Your task to perform on an android device: Go to calendar. Show me events next week Image 0: 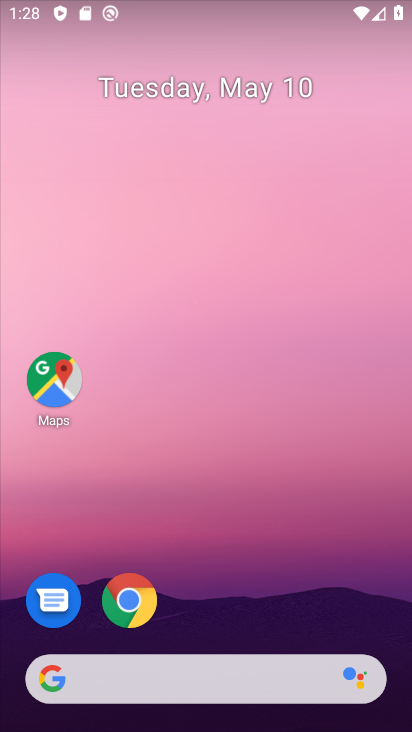
Step 0: drag from (261, 586) to (257, 201)
Your task to perform on an android device: Go to calendar. Show me events next week Image 1: 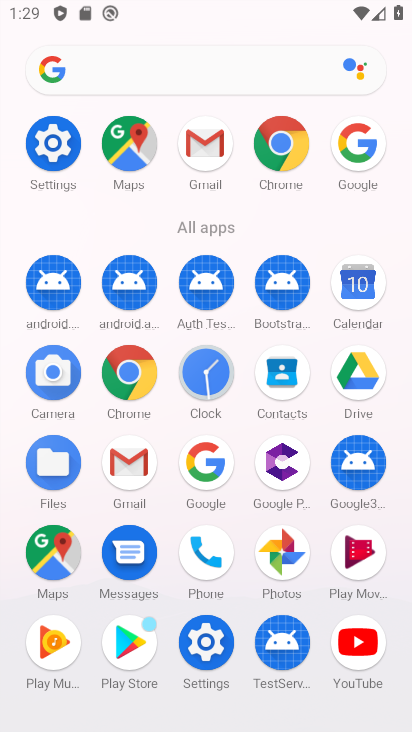
Step 1: click (358, 284)
Your task to perform on an android device: Go to calendar. Show me events next week Image 2: 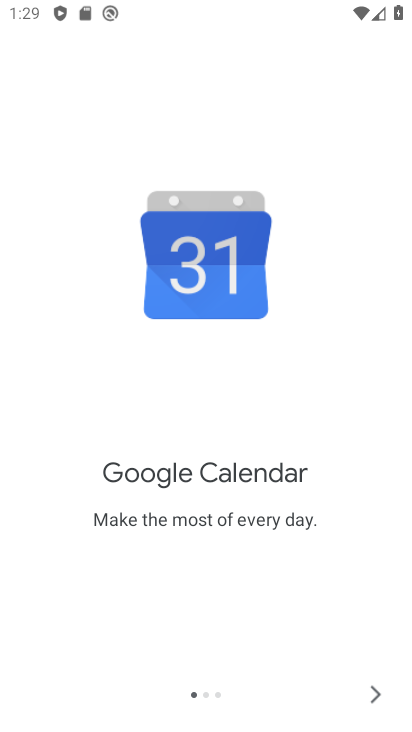
Step 2: click (363, 699)
Your task to perform on an android device: Go to calendar. Show me events next week Image 3: 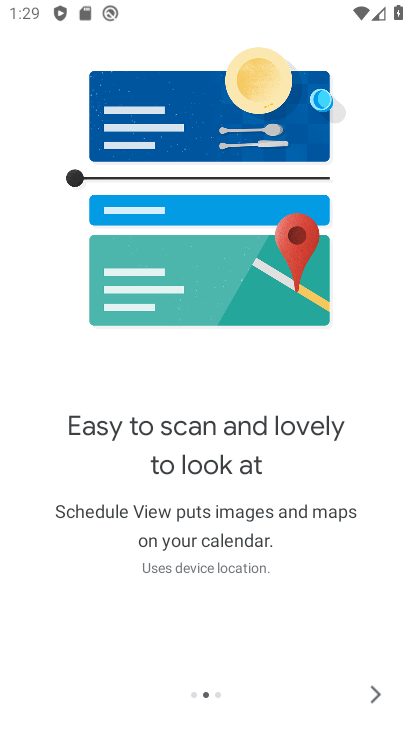
Step 3: click (363, 699)
Your task to perform on an android device: Go to calendar. Show me events next week Image 4: 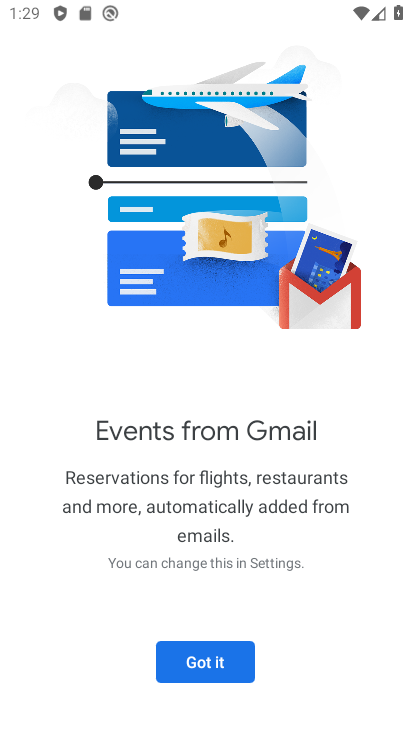
Step 4: click (213, 666)
Your task to perform on an android device: Go to calendar. Show me events next week Image 5: 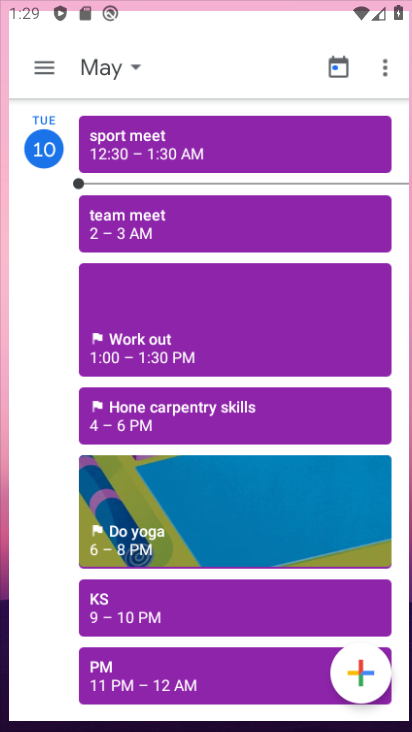
Step 5: click (213, 666)
Your task to perform on an android device: Go to calendar. Show me events next week Image 6: 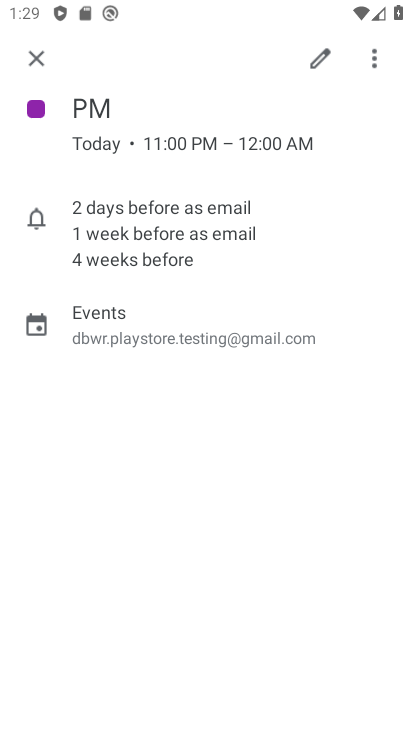
Step 6: click (39, 55)
Your task to perform on an android device: Go to calendar. Show me events next week Image 7: 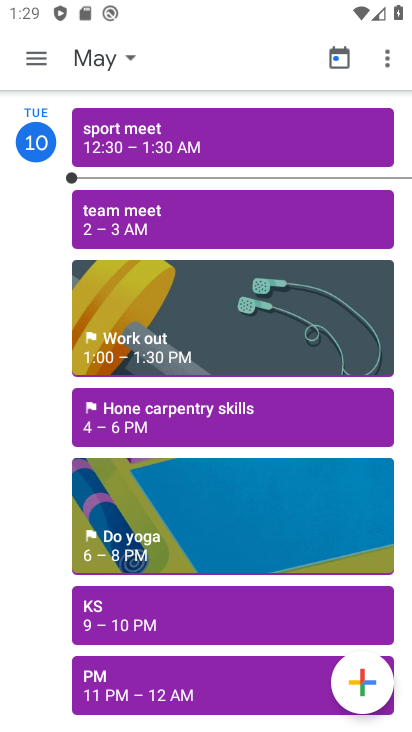
Step 7: click (119, 57)
Your task to perform on an android device: Go to calendar. Show me events next week Image 8: 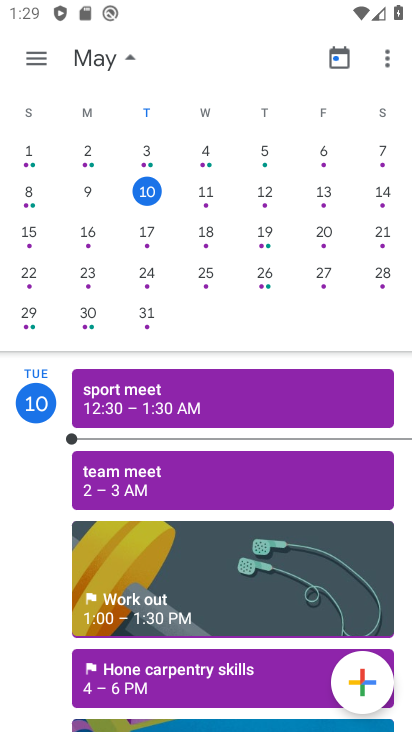
Step 8: click (149, 231)
Your task to perform on an android device: Go to calendar. Show me events next week Image 9: 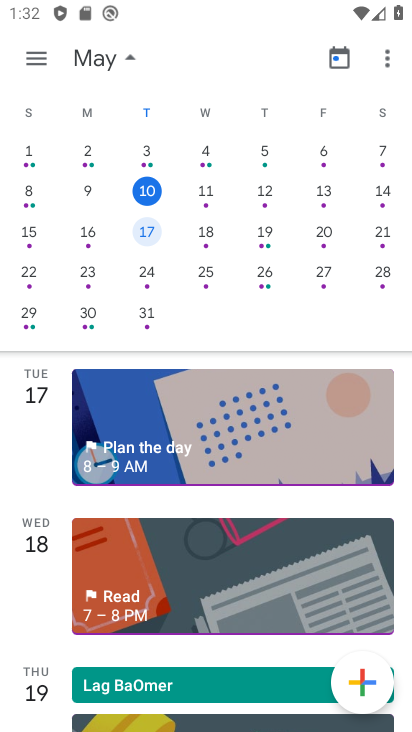
Step 9: task complete